Your task to perform on an android device: Open Wikipedia Image 0: 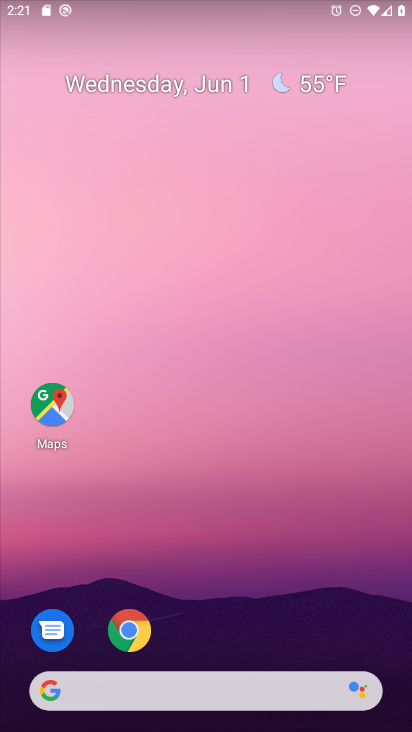
Step 0: drag from (294, 710) to (361, 148)
Your task to perform on an android device: Open Wikipedia Image 1: 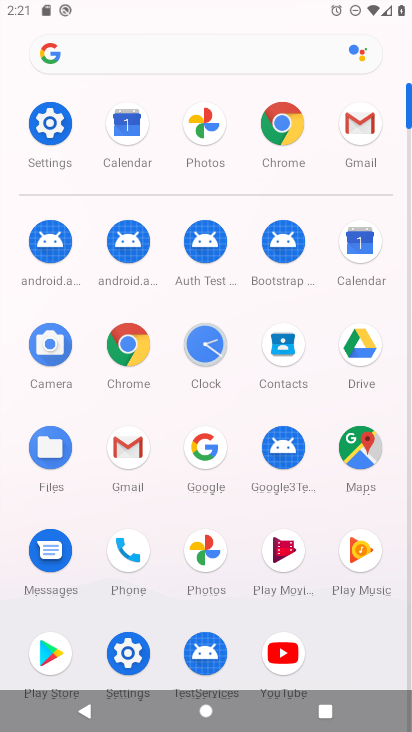
Step 1: click (133, 346)
Your task to perform on an android device: Open Wikipedia Image 2: 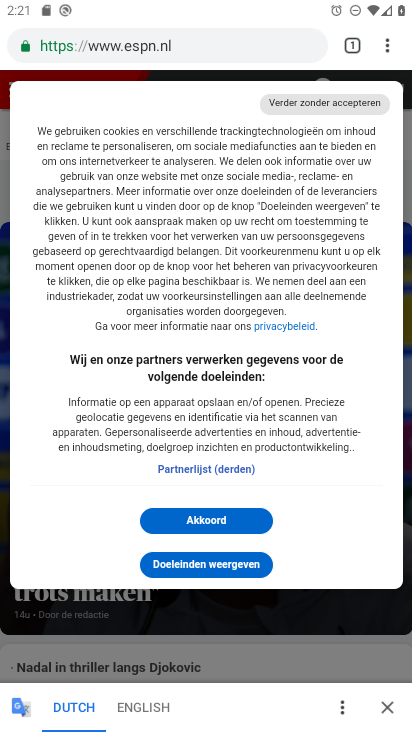
Step 2: click (235, 631)
Your task to perform on an android device: Open Wikipedia Image 3: 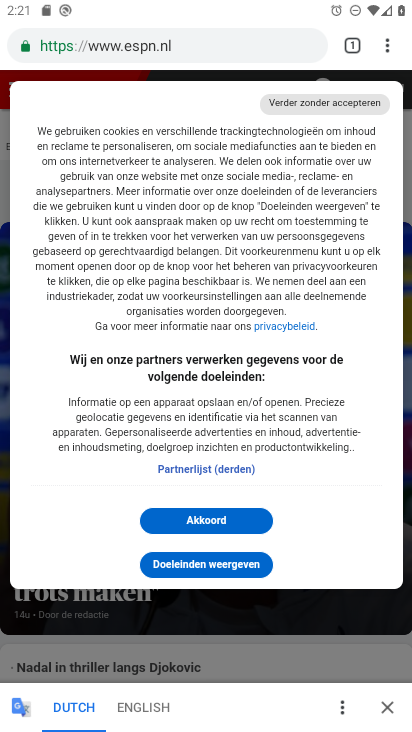
Step 3: press back button
Your task to perform on an android device: Open Wikipedia Image 4: 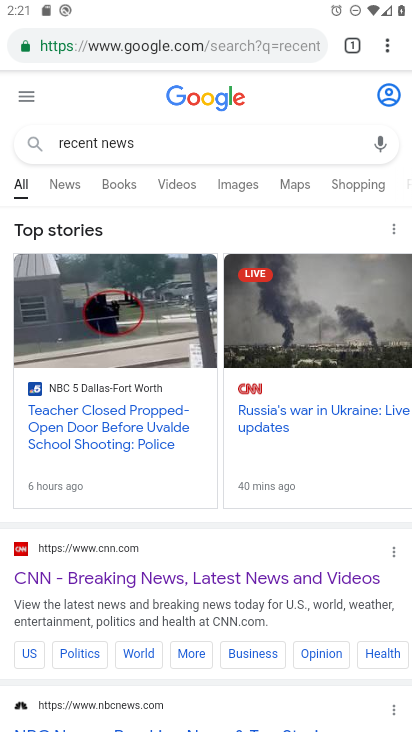
Step 4: drag from (393, 48) to (202, 89)
Your task to perform on an android device: Open Wikipedia Image 5: 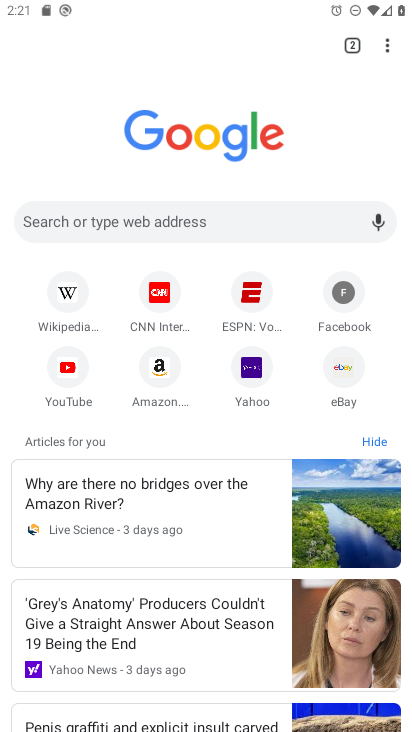
Step 5: click (76, 292)
Your task to perform on an android device: Open Wikipedia Image 6: 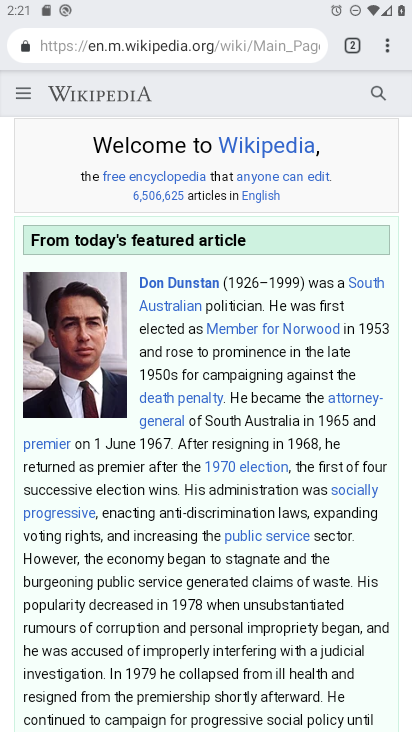
Step 6: task complete